Your task to perform on an android device: Open internet settings Image 0: 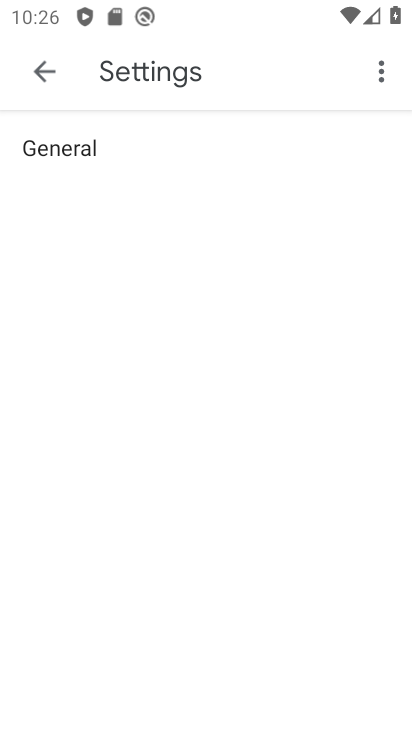
Step 0: press home button
Your task to perform on an android device: Open internet settings Image 1: 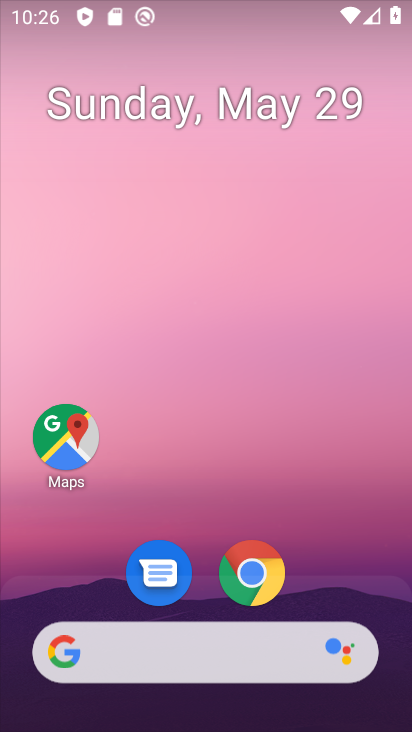
Step 1: drag from (366, 125) to (390, 38)
Your task to perform on an android device: Open internet settings Image 2: 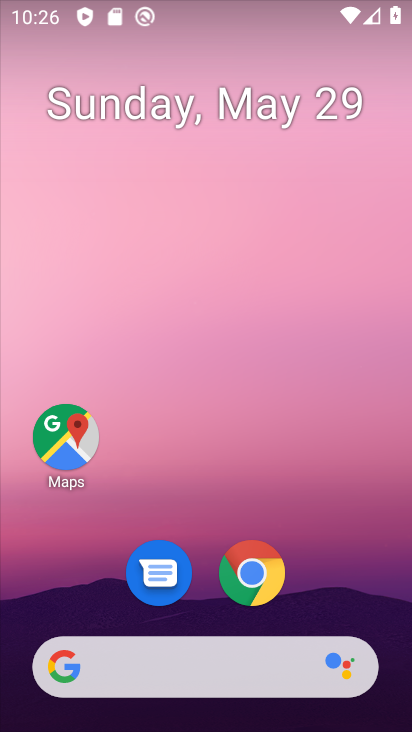
Step 2: drag from (335, 509) to (324, 10)
Your task to perform on an android device: Open internet settings Image 3: 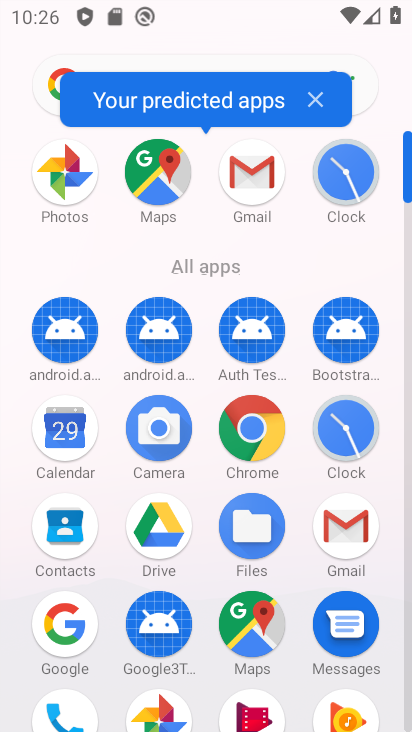
Step 3: drag from (206, 577) to (299, 69)
Your task to perform on an android device: Open internet settings Image 4: 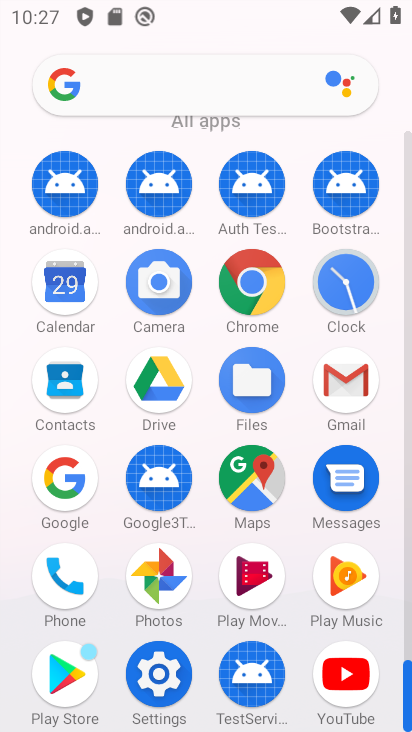
Step 4: click (154, 643)
Your task to perform on an android device: Open internet settings Image 5: 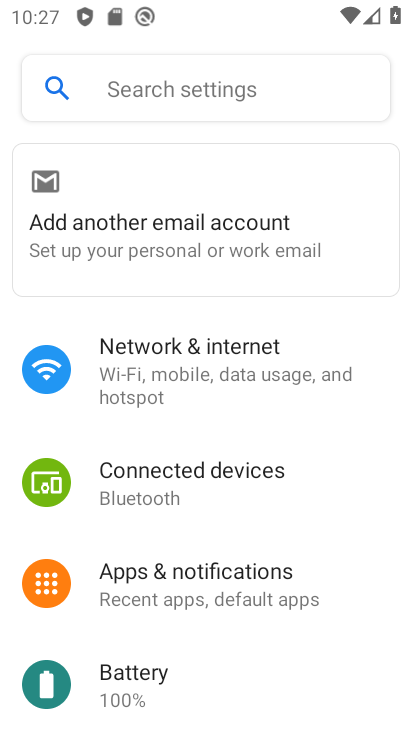
Step 5: click (176, 361)
Your task to perform on an android device: Open internet settings Image 6: 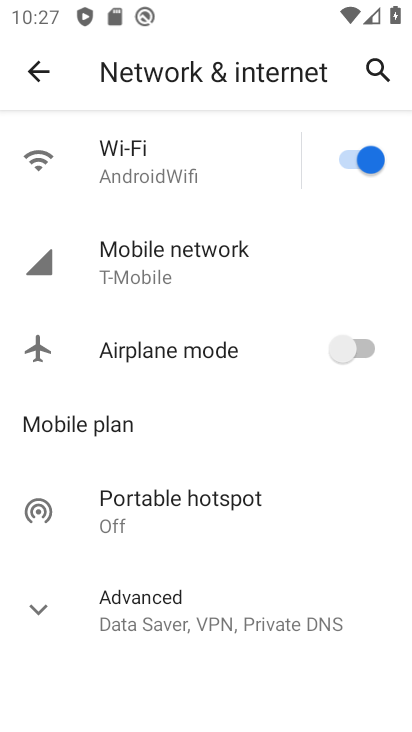
Step 6: task complete